Your task to perform on an android device: Open calendar and show me the fourth week of next month Image 0: 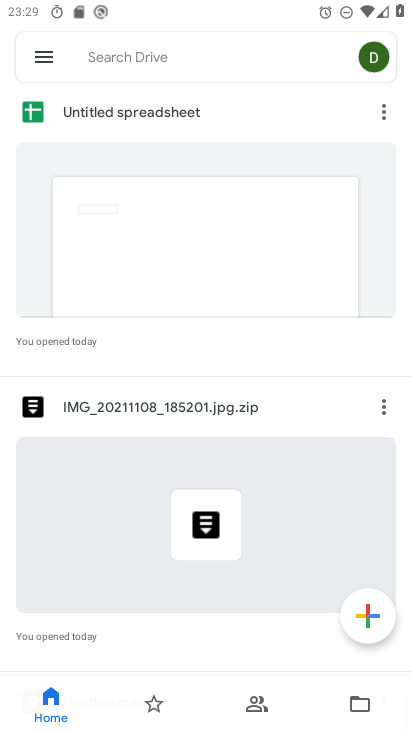
Step 0: press home button
Your task to perform on an android device: Open calendar and show me the fourth week of next month Image 1: 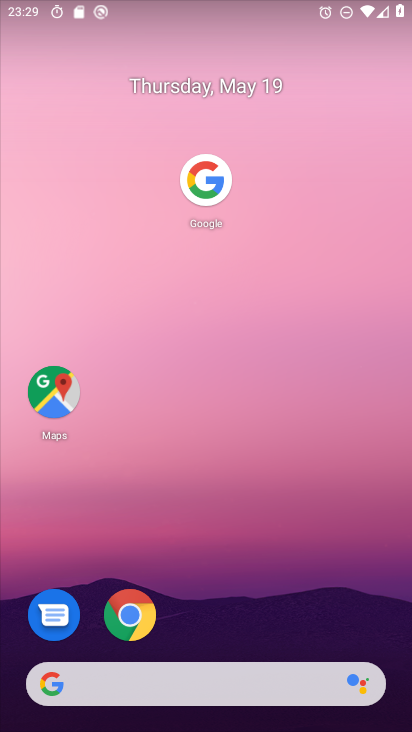
Step 1: drag from (236, 564) to (295, 61)
Your task to perform on an android device: Open calendar and show me the fourth week of next month Image 2: 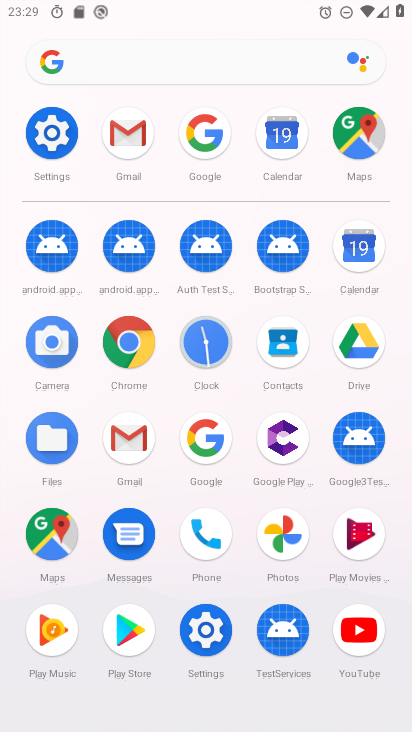
Step 2: click (371, 253)
Your task to perform on an android device: Open calendar and show me the fourth week of next month Image 3: 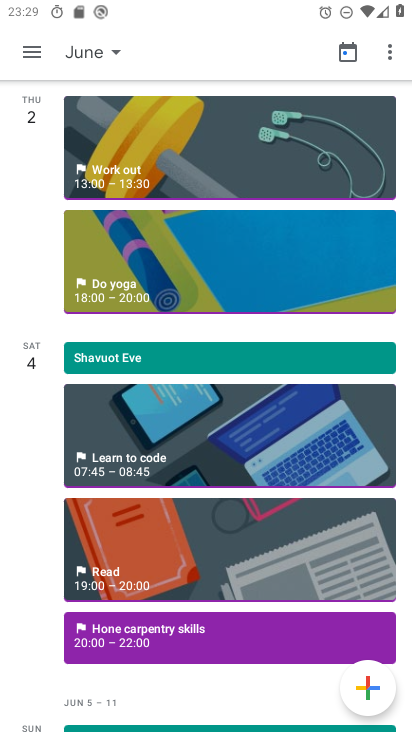
Step 3: click (105, 55)
Your task to perform on an android device: Open calendar and show me the fourth week of next month Image 4: 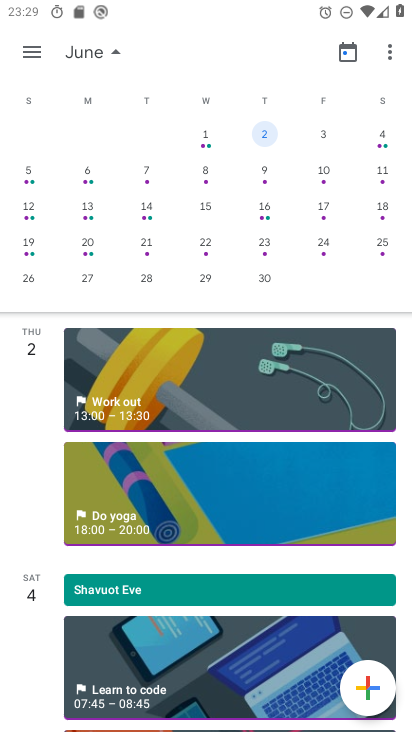
Step 4: click (201, 234)
Your task to perform on an android device: Open calendar and show me the fourth week of next month Image 5: 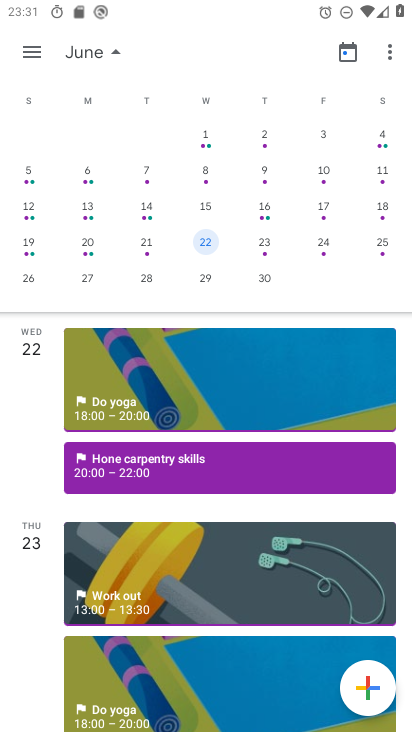
Step 5: task complete